Your task to perform on an android device: turn off priority inbox in the gmail app Image 0: 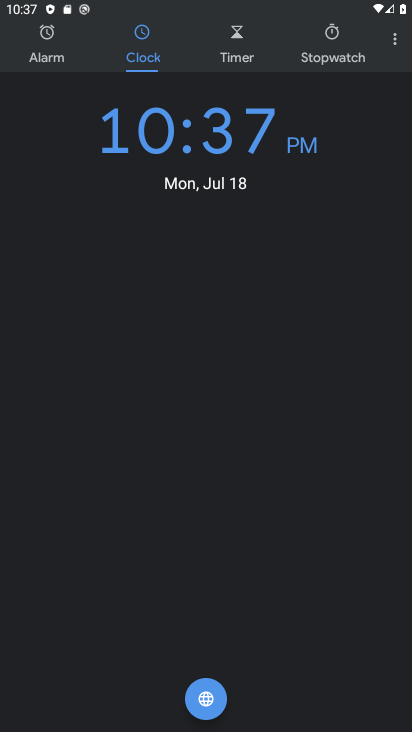
Step 0: press home button
Your task to perform on an android device: turn off priority inbox in the gmail app Image 1: 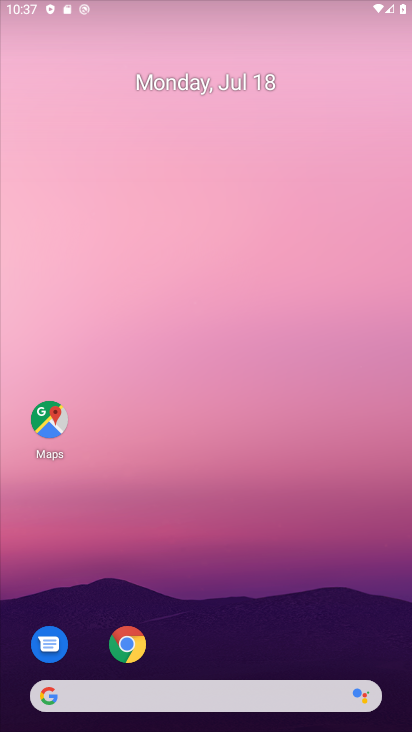
Step 1: drag from (223, 673) to (234, 123)
Your task to perform on an android device: turn off priority inbox in the gmail app Image 2: 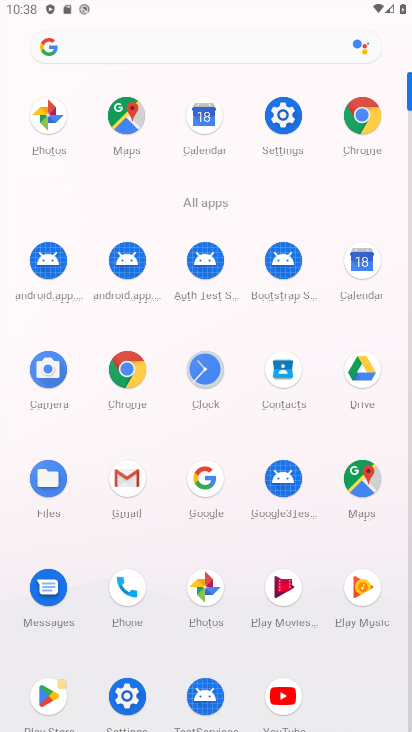
Step 2: click (125, 478)
Your task to perform on an android device: turn off priority inbox in the gmail app Image 3: 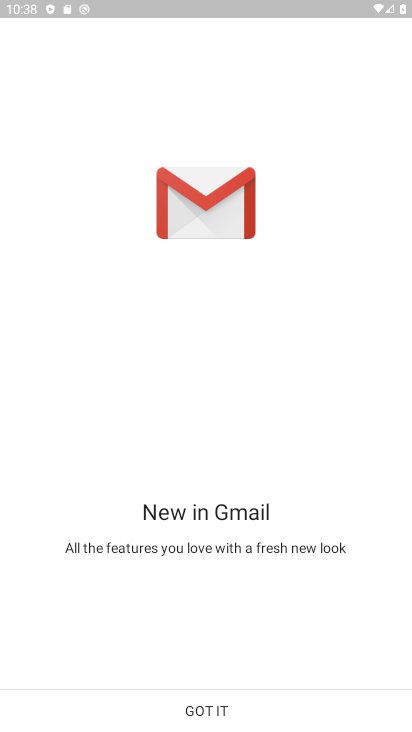
Step 3: click (205, 701)
Your task to perform on an android device: turn off priority inbox in the gmail app Image 4: 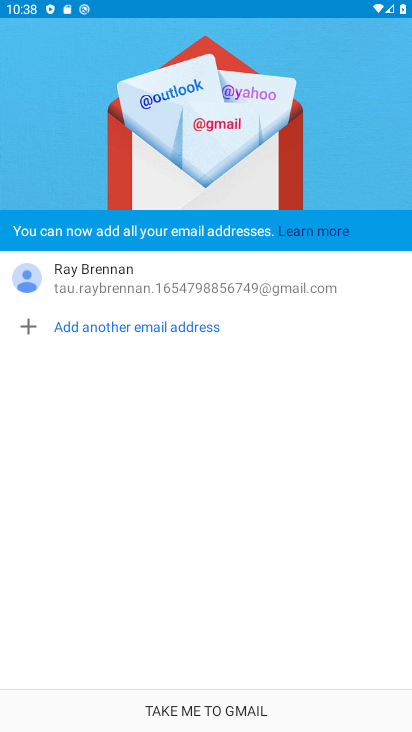
Step 4: click (205, 701)
Your task to perform on an android device: turn off priority inbox in the gmail app Image 5: 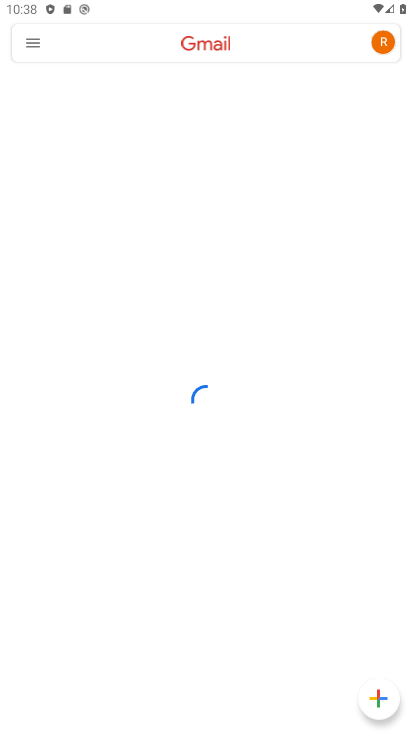
Step 5: click (31, 42)
Your task to perform on an android device: turn off priority inbox in the gmail app Image 6: 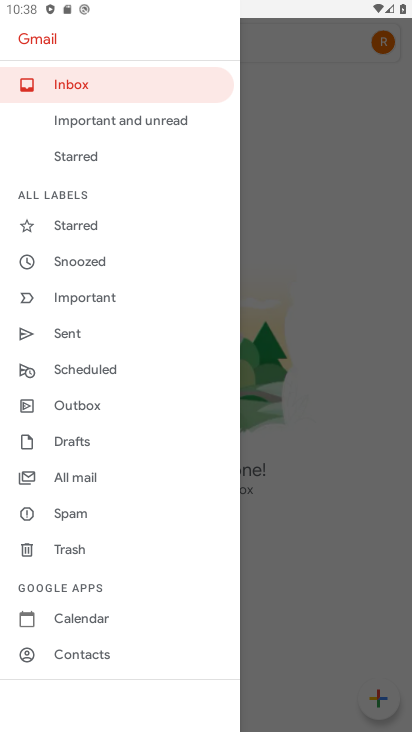
Step 6: drag from (106, 625) to (111, 295)
Your task to perform on an android device: turn off priority inbox in the gmail app Image 7: 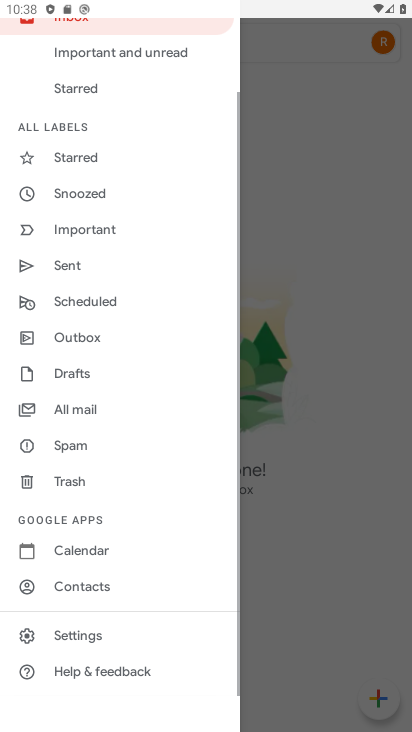
Step 7: click (38, 636)
Your task to perform on an android device: turn off priority inbox in the gmail app Image 8: 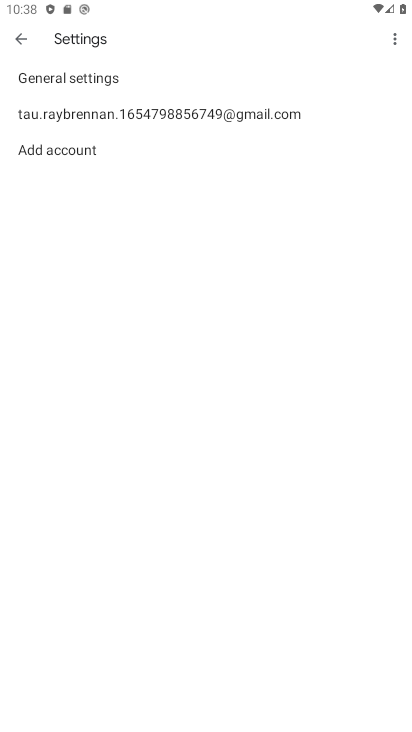
Step 8: click (107, 103)
Your task to perform on an android device: turn off priority inbox in the gmail app Image 9: 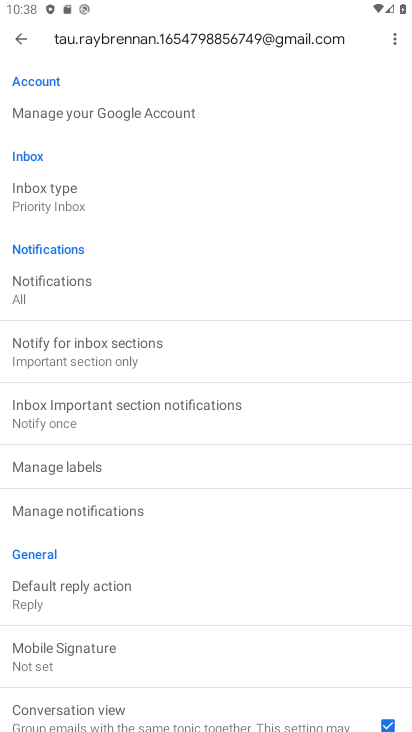
Step 9: click (77, 202)
Your task to perform on an android device: turn off priority inbox in the gmail app Image 10: 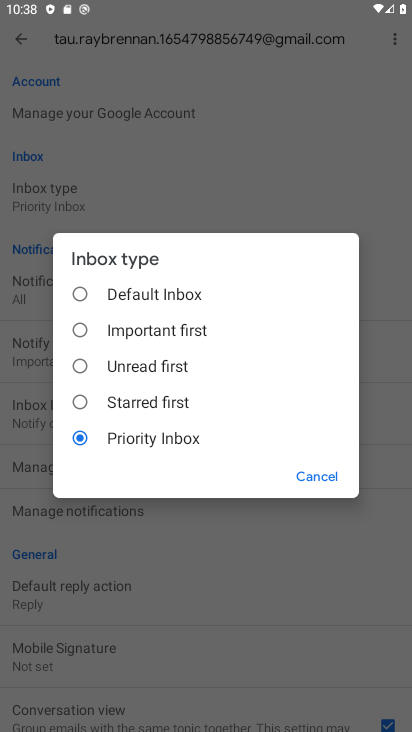
Step 10: click (80, 295)
Your task to perform on an android device: turn off priority inbox in the gmail app Image 11: 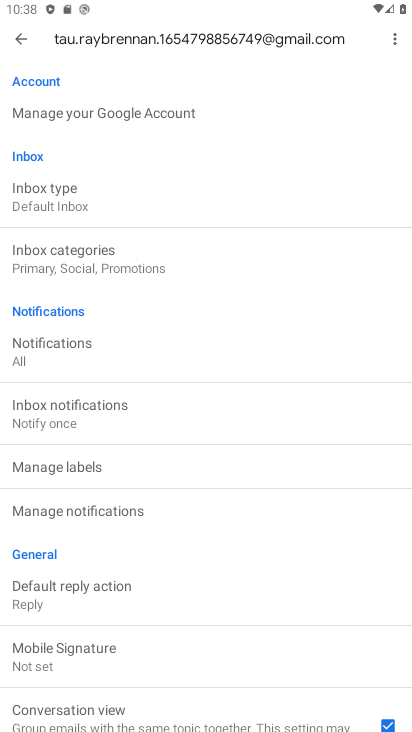
Step 11: task complete